Your task to perform on an android device: open app "YouTube Kids" (install if not already installed) Image 0: 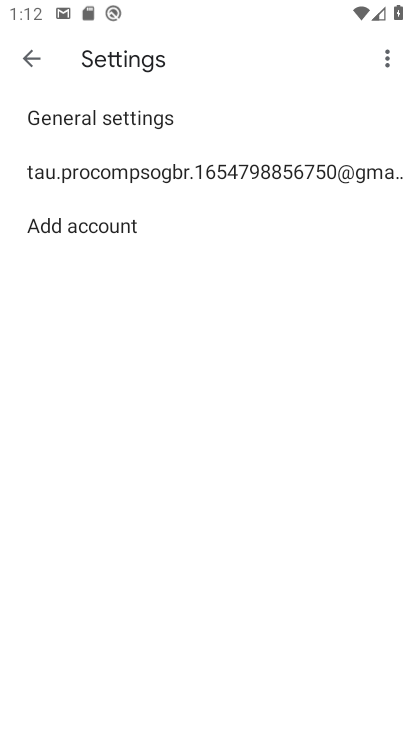
Step 0: press home button
Your task to perform on an android device: open app "YouTube Kids" (install if not already installed) Image 1: 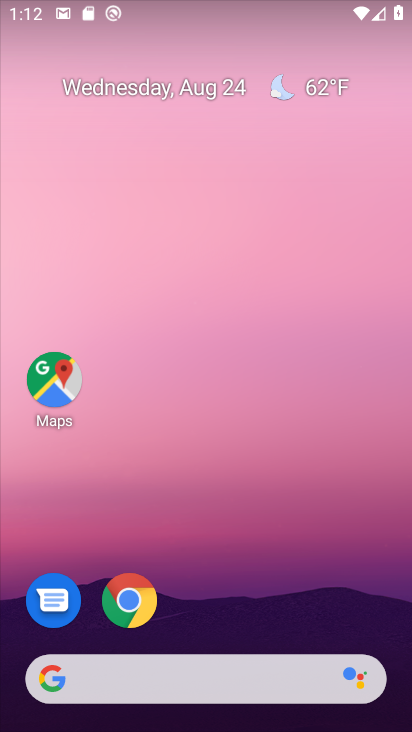
Step 1: drag from (261, 652) to (157, 260)
Your task to perform on an android device: open app "YouTube Kids" (install if not already installed) Image 2: 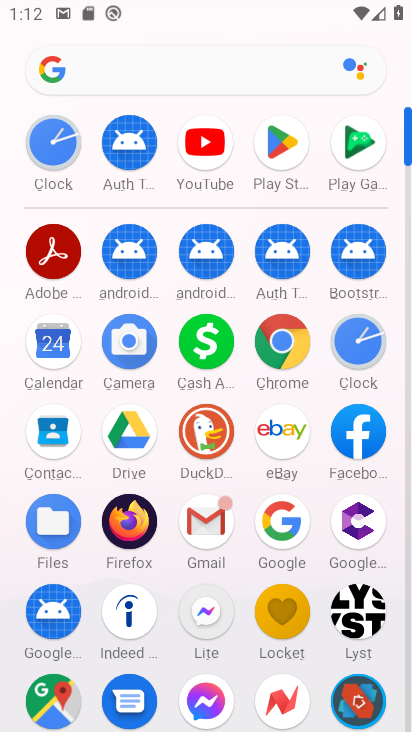
Step 2: click (275, 164)
Your task to perform on an android device: open app "YouTube Kids" (install if not already installed) Image 3: 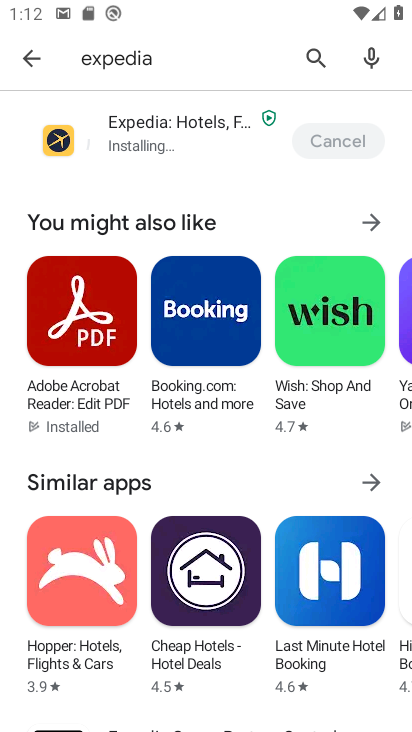
Step 3: click (307, 63)
Your task to perform on an android device: open app "YouTube Kids" (install if not already installed) Image 4: 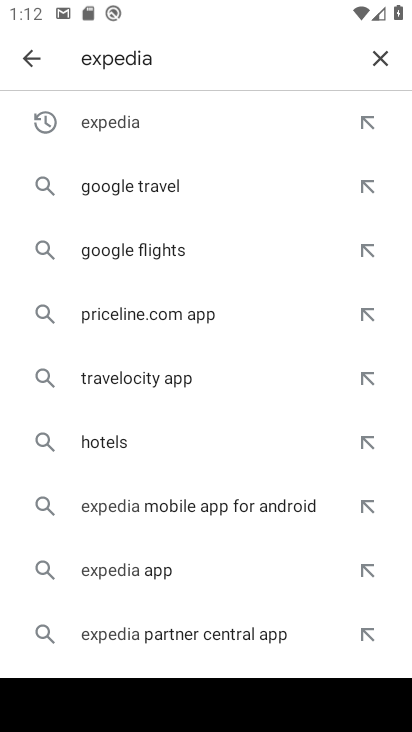
Step 4: click (379, 59)
Your task to perform on an android device: open app "YouTube Kids" (install if not already installed) Image 5: 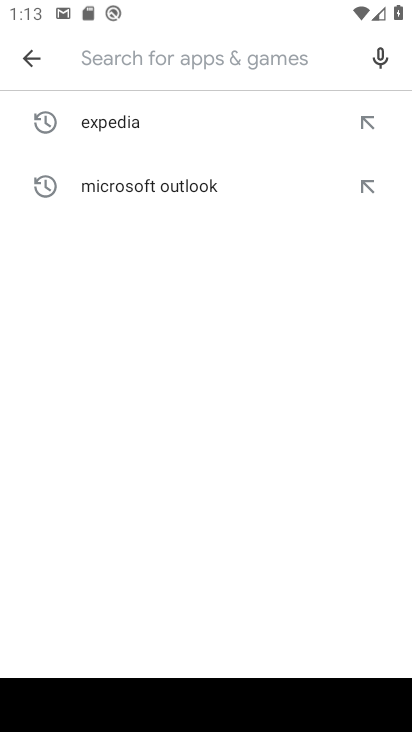
Step 5: type "youtube kid"
Your task to perform on an android device: open app "YouTube Kids" (install if not already installed) Image 6: 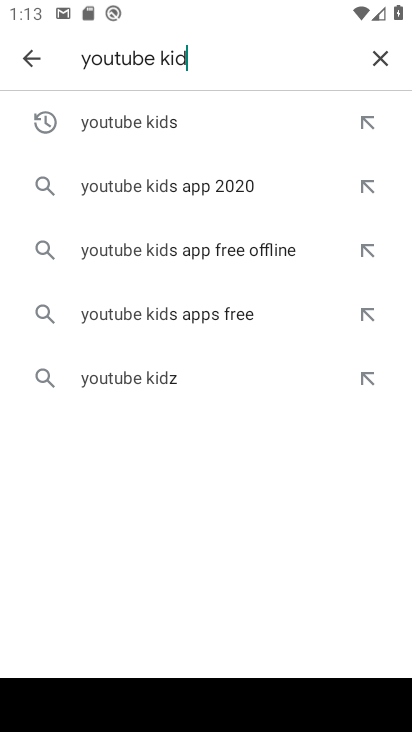
Step 6: click (247, 121)
Your task to perform on an android device: open app "YouTube Kids" (install if not already installed) Image 7: 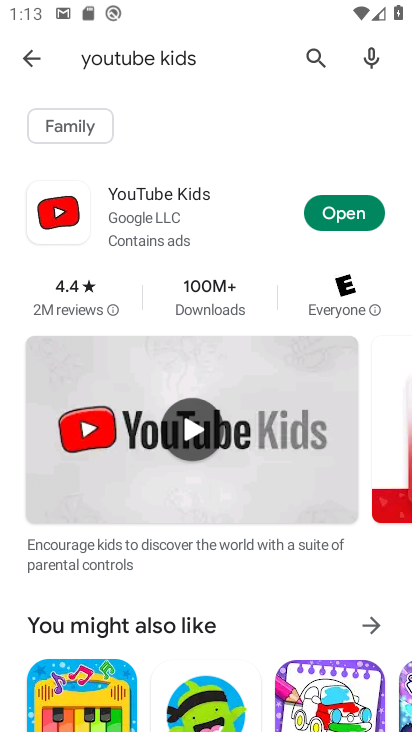
Step 7: click (354, 200)
Your task to perform on an android device: open app "YouTube Kids" (install if not already installed) Image 8: 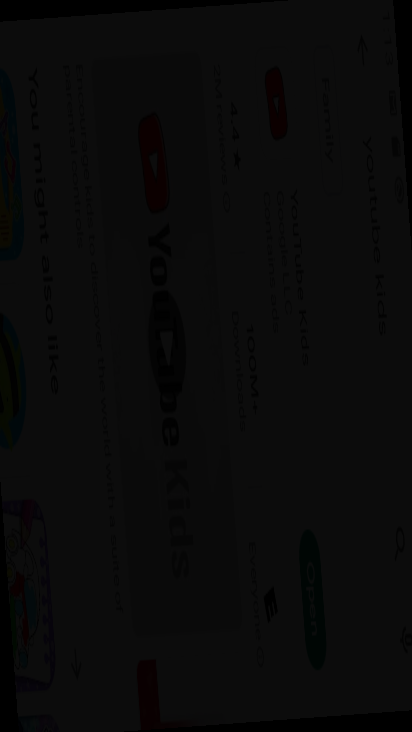
Step 8: task complete